Your task to perform on an android device: turn on priority inbox in the gmail app Image 0: 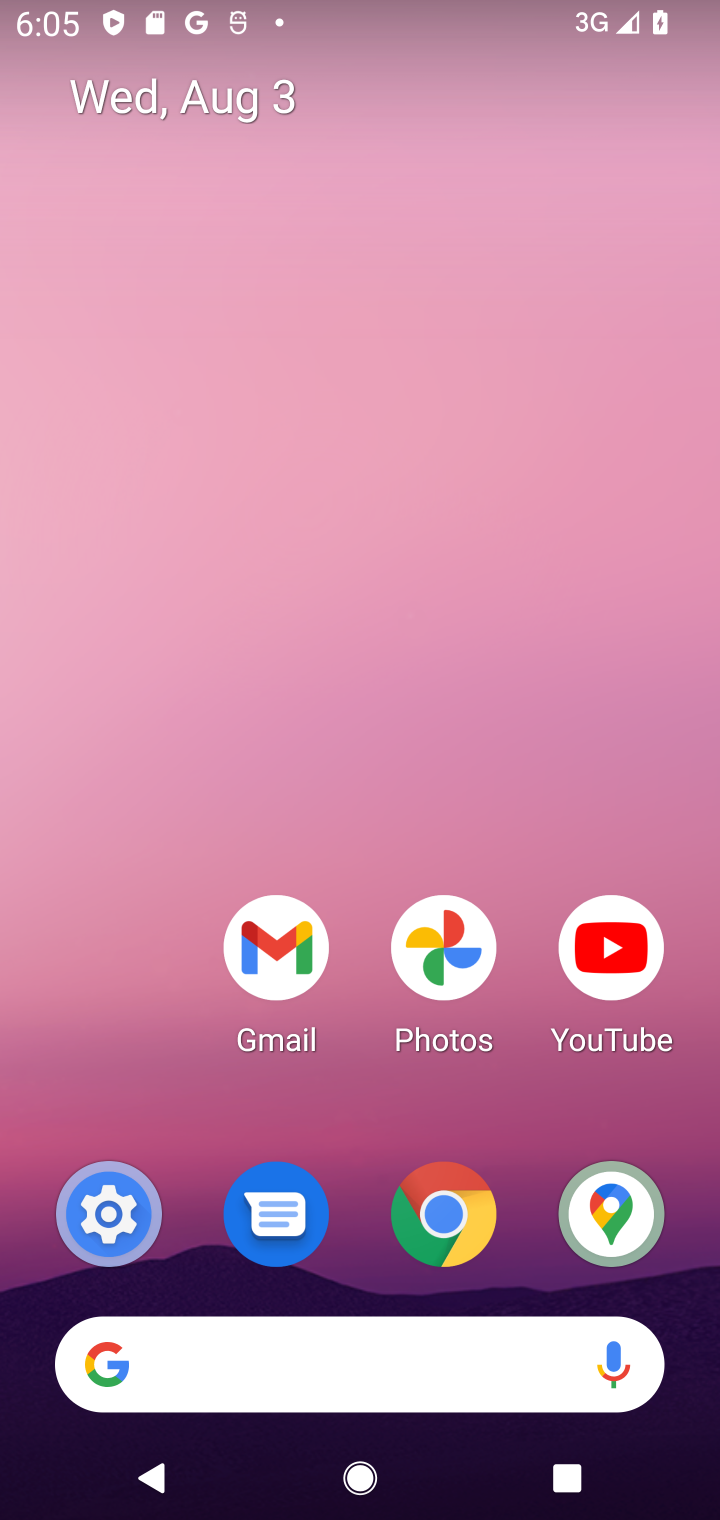
Step 0: click (261, 971)
Your task to perform on an android device: turn on priority inbox in the gmail app Image 1: 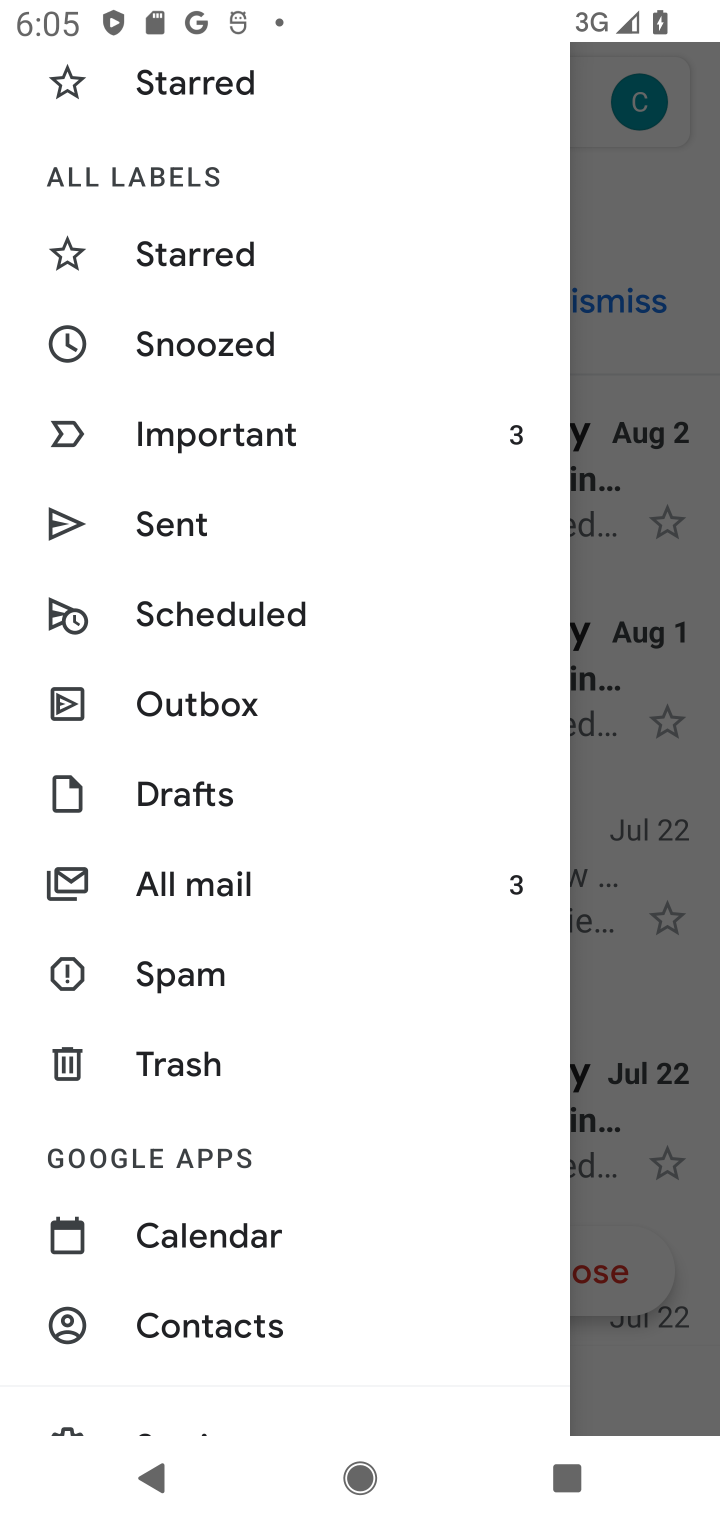
Step 1: drag from (298, 1255) to (209, 515)
Your task to perform on an android device: turn on priority inbox in the gmail app Image 2: 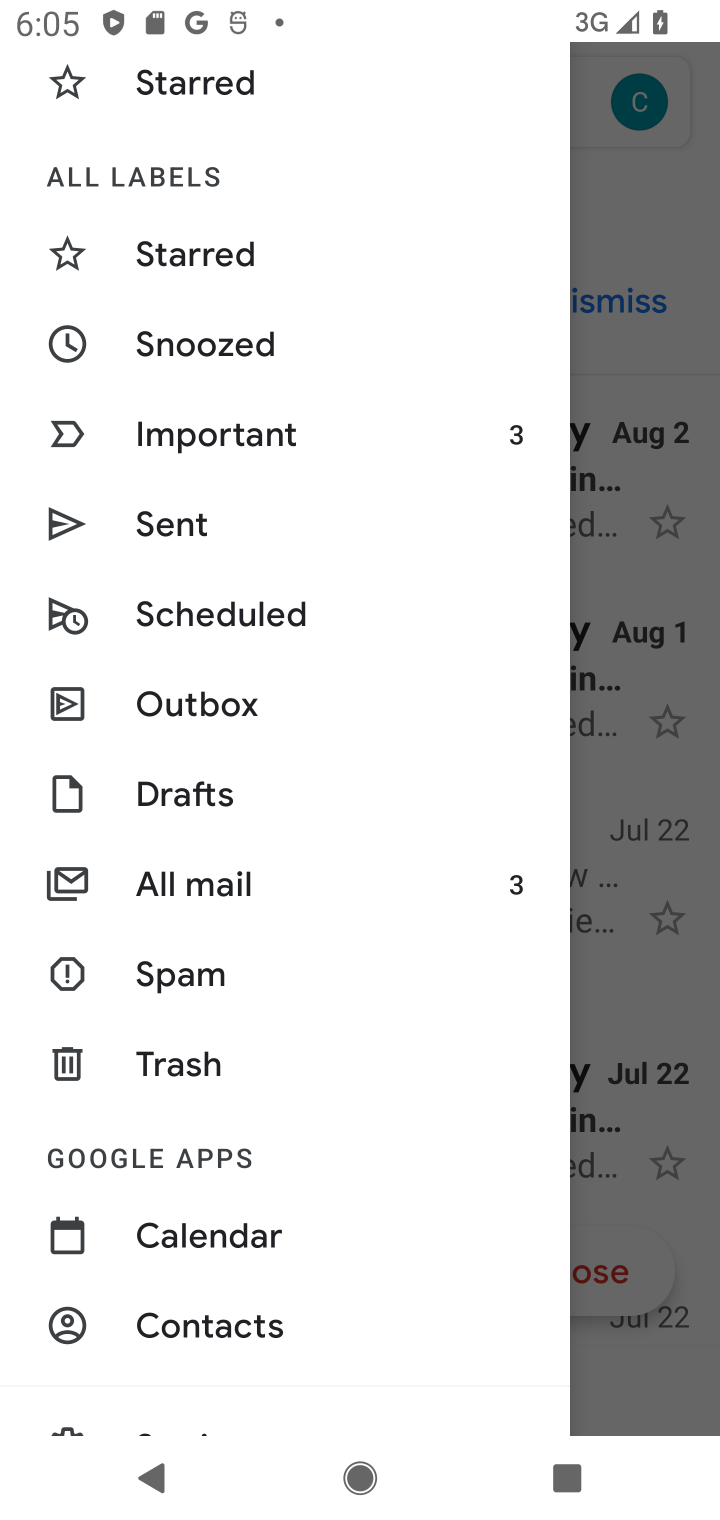
Step 2: drag from (122, 1327) to (103, 255)
Your task to perform on an android device: turn on priority inbox in the gmail app Image 3: 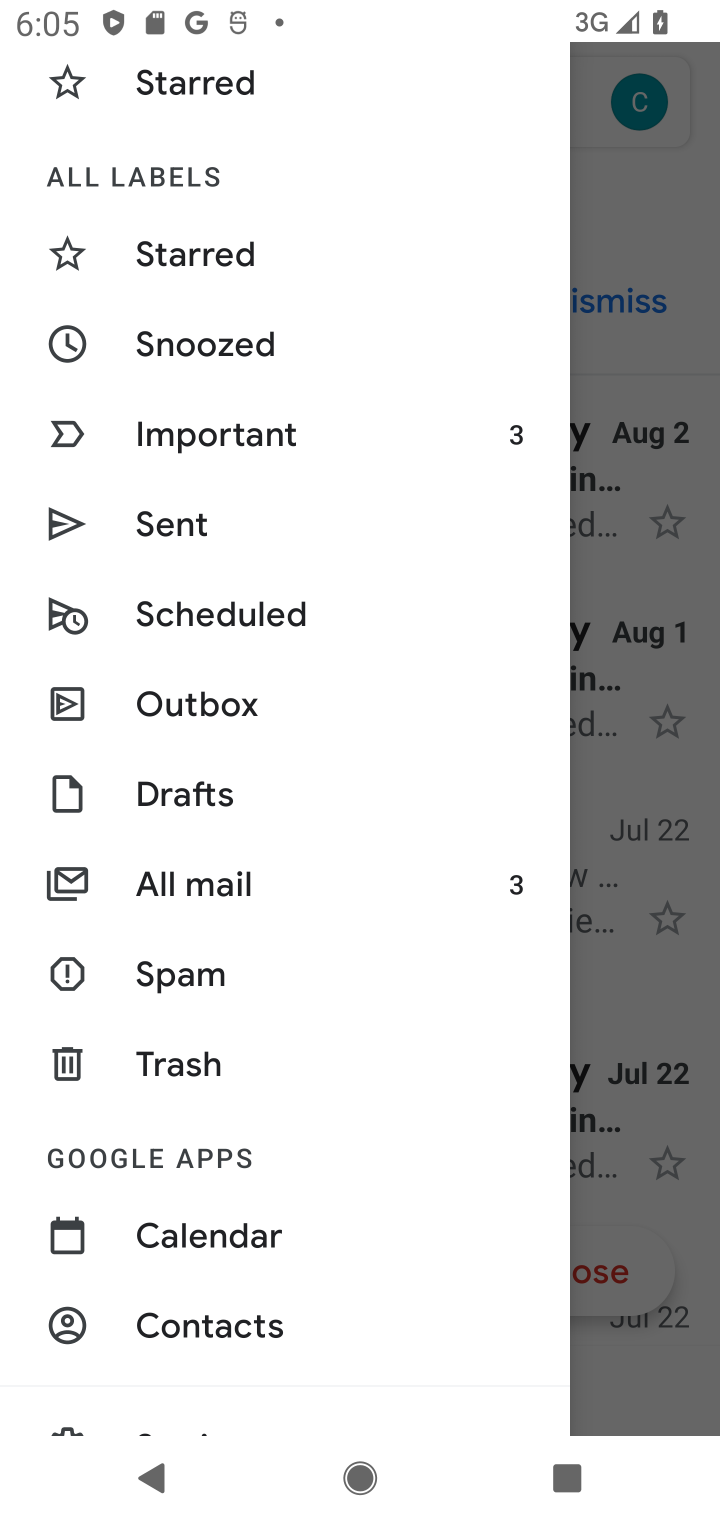
Step 3: drag from (206, 994) to (132, 54)
Your task to perform on an android device: turn on priority inbox in the gmail app Image 4: 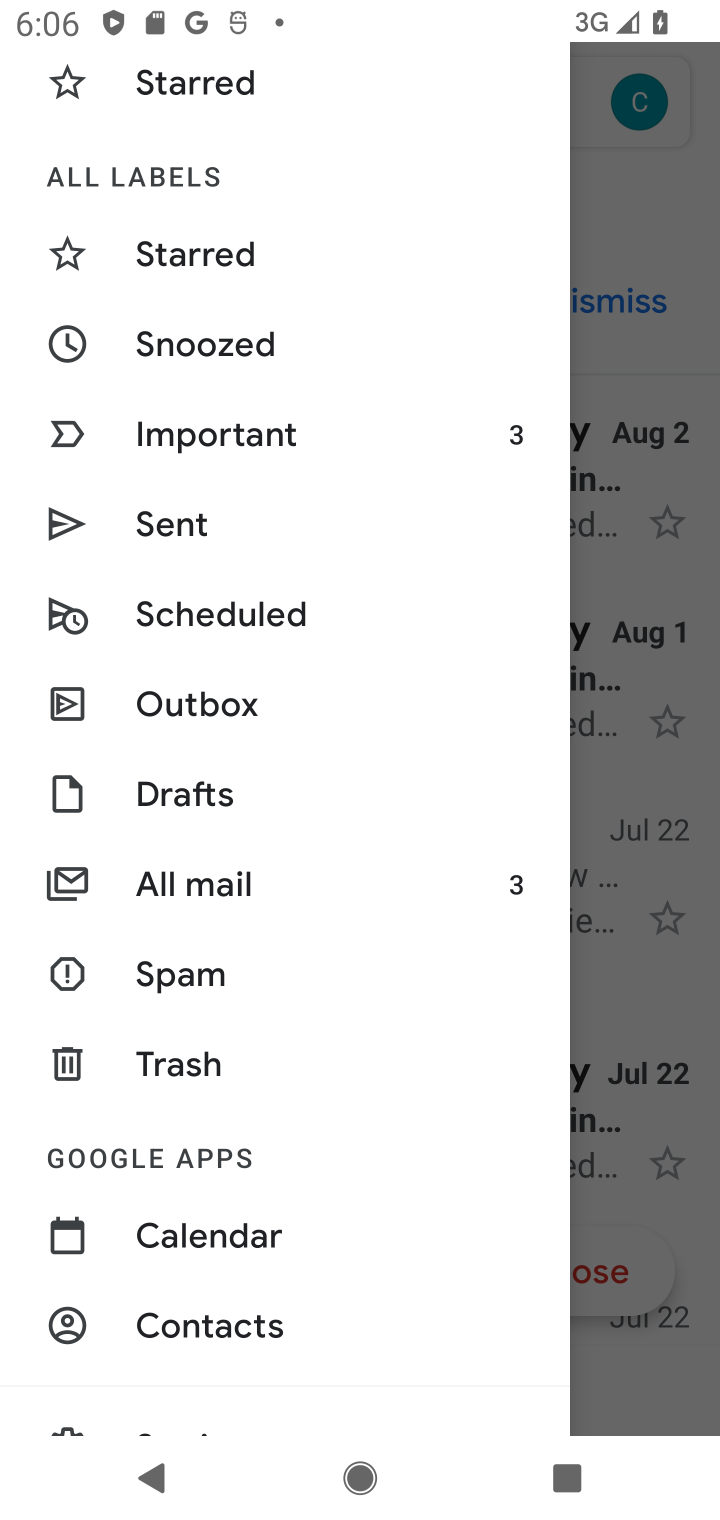
Step 4: drag from (206, 1175) to (206, 438)
Your task to perform on an android device: turn on priority inbox in the gmail app Image 5: 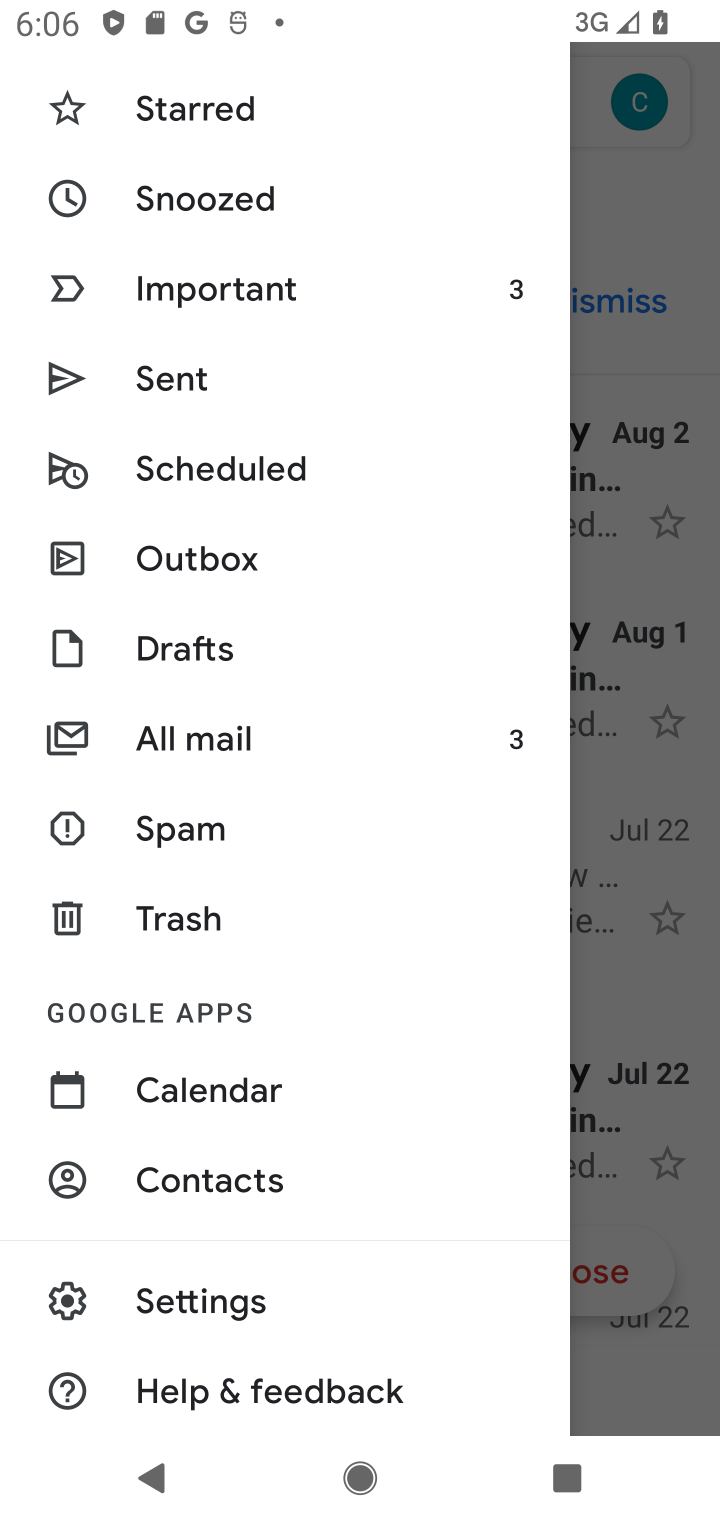
Step 5: click (203, 1302)
Your task to perform on an android device: turn on priority inbox in the gmail app Image 6: 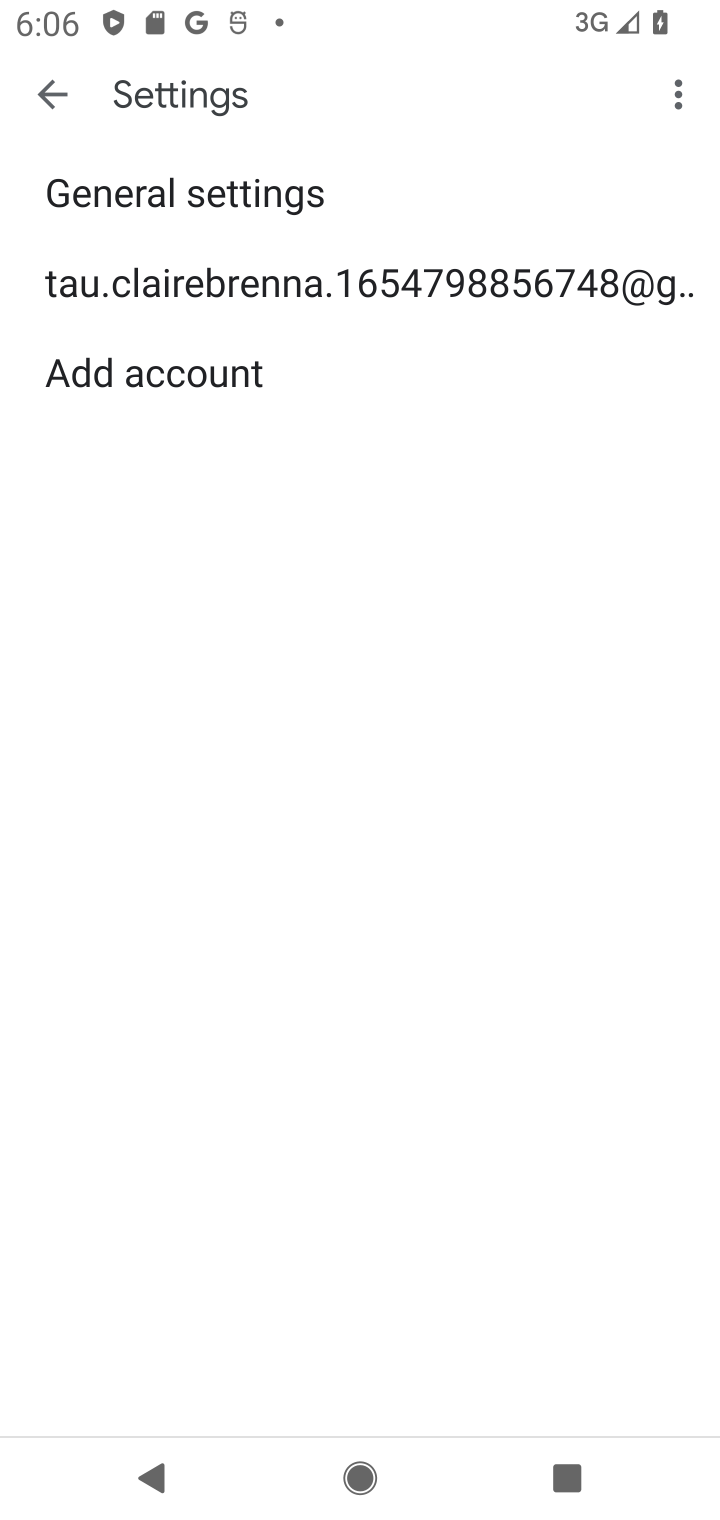
Step 6: click (508, 259)
Your task to perform on an android device: turn on priority inbox in the gmail app Image 7: 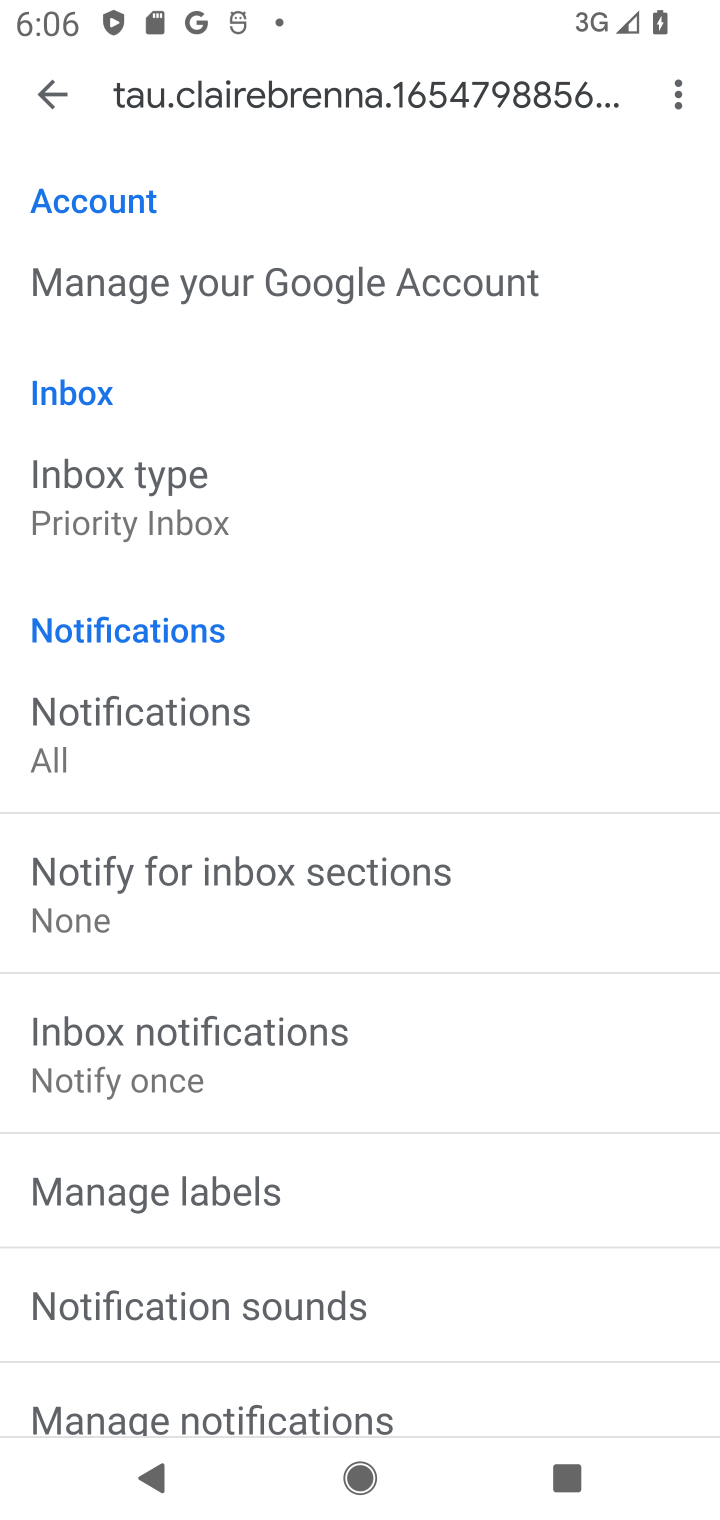
Step 7: click (219, 489)
Your task to perform on an android device: turn on priority inbox in the gmail app Image 8: 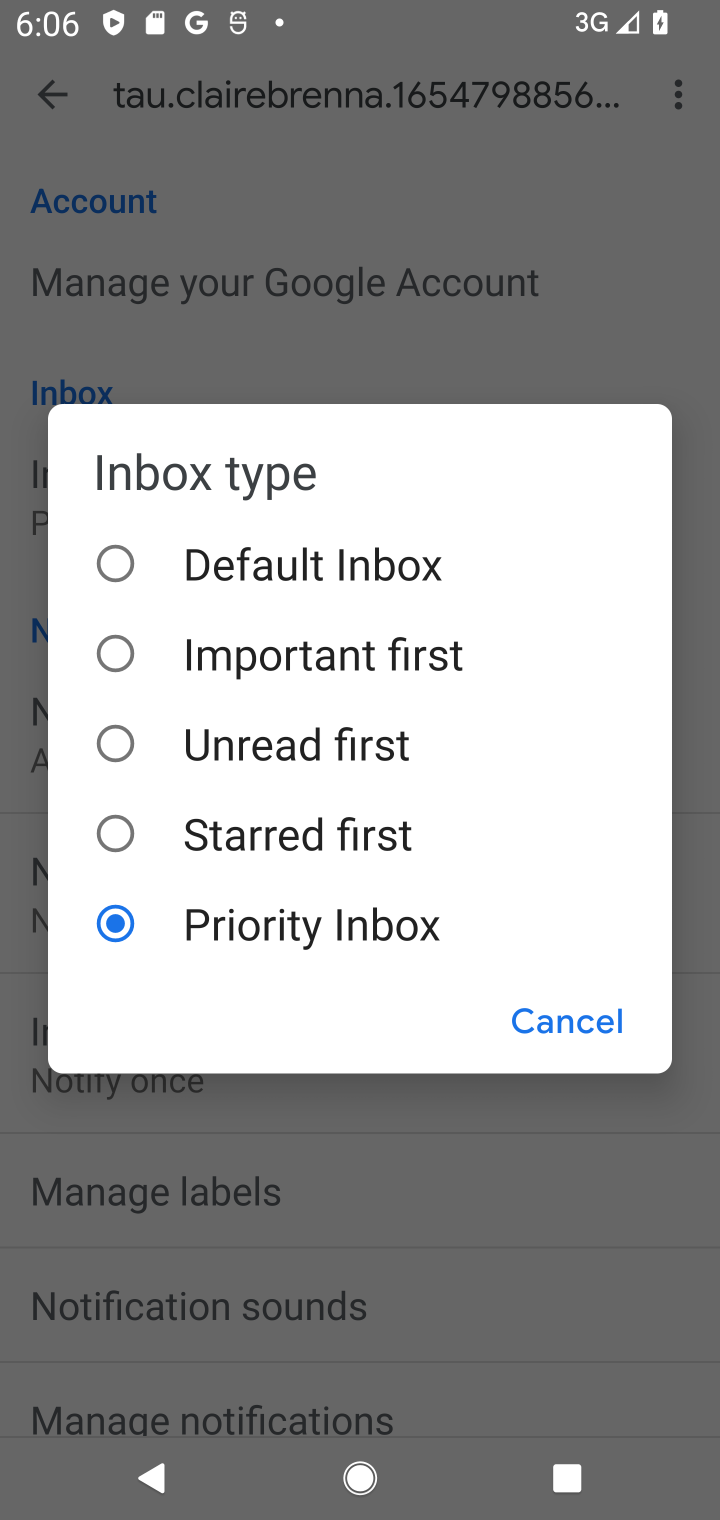
Step 8: click (229, 918)
Your task to perform on an android device: turn on priority inbox in the gmail app Image 9: 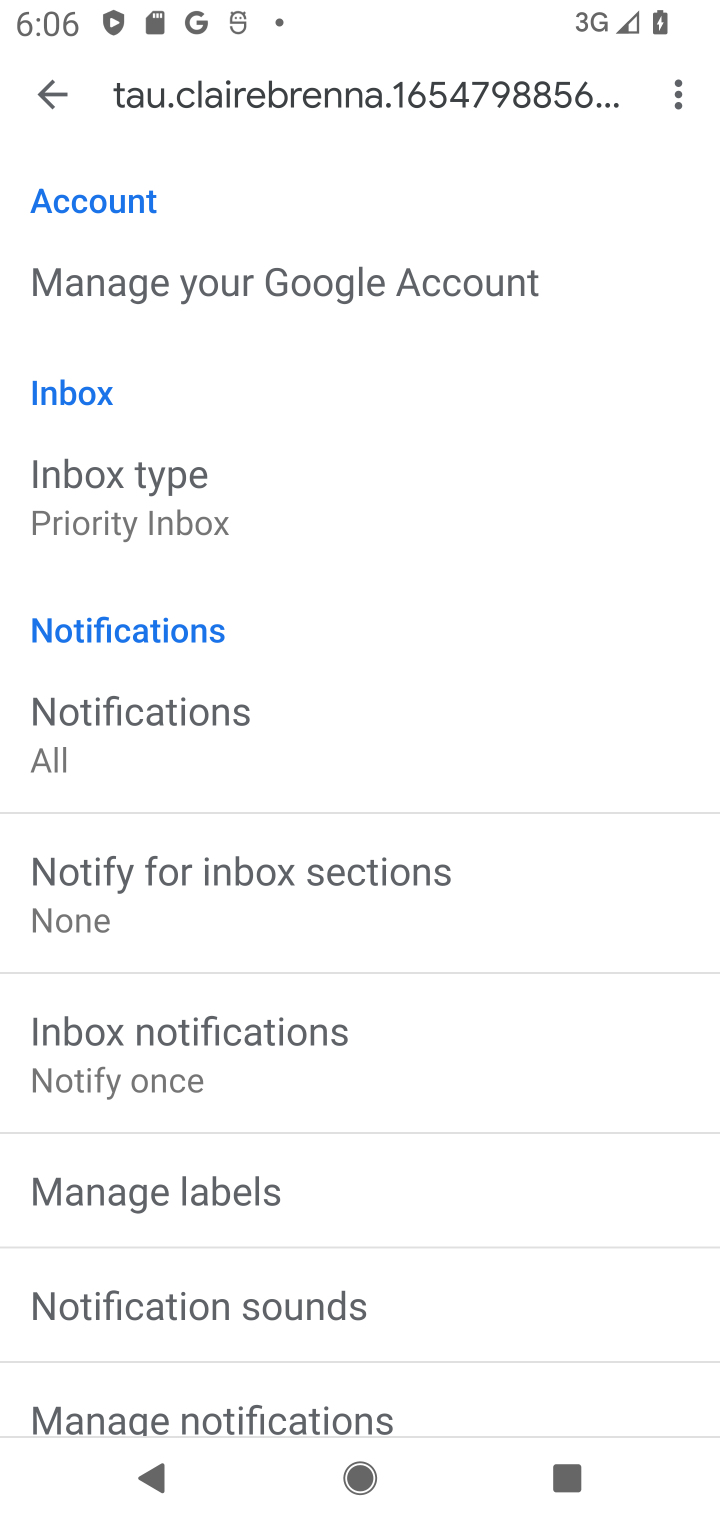
Step 9: task complete